Your task to perform on an android device: Search for "bose soundlink mini" on ebay, select the first entry, add it to the cart, then select checkout. Image 0: 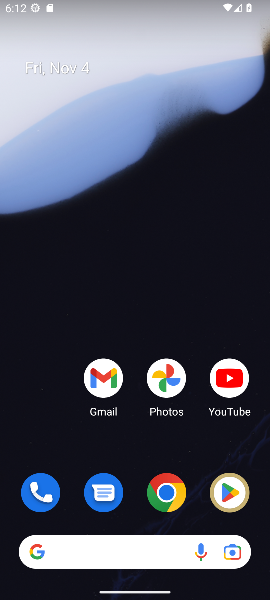
Step 0: drag from (135, 448) to (135, 49)
Your task to perform on an android device: Search for "bose soundlink mini" on ebay, select the first entry, add it to the cart, then select checkout. Image 1: 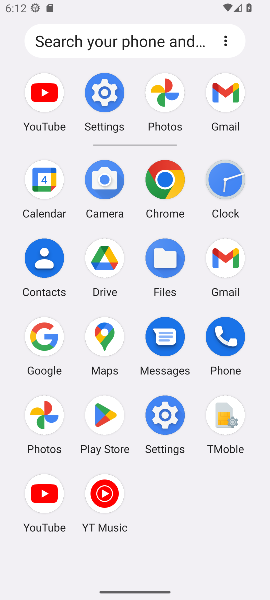
Step 1: click (159, 181)
Your task to perform on an android device: Search for "bose soundlink mini" on ebay, select the first entry, add it to the cart, then select checkout. Image 2: 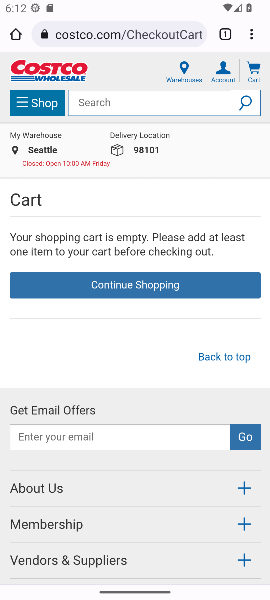
Step 2: click (154, 28)
Your task to perform on an android device: Search for "bose soundlink mini" on ebay, select the first entry, add it to the cart, then select checkout. Image 3: 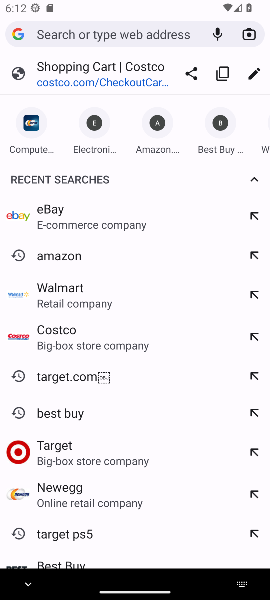
Step 3: type "ebay.com"
Your task to perform on an android device: Search for "bose soundlink mini" on ebay, select the first entry, add it to the cart, then select checkout. Image 4: 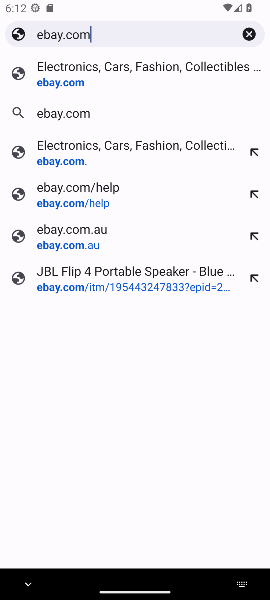
Step 4: press enter
Your task to perform on an android device: Search for "bose soundlink mini" on ebay, select the first entry, add it to the cart, then select checkout. Image 5: 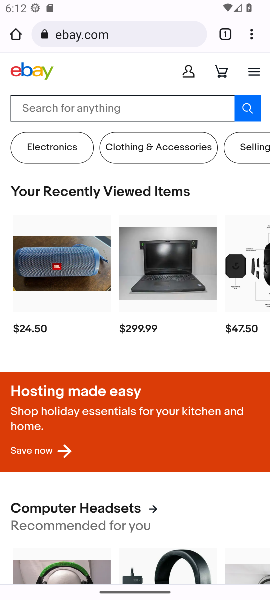
Step 5: click (144, 109)
Your task to perform on an android device: Search for "bose soundlink mini" on ebay, select the first entry, add it to the cart, then select checkout. Image 6: 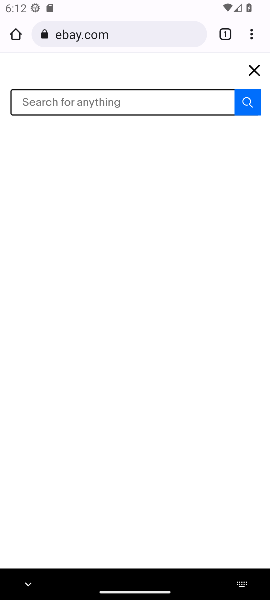
Step 6: type "bose soundlink mini"
Your task to perform on an android device: Search for "bose soundlink mini" on ebay, select the first entry, add it to the cart, then select checkout. Image 7: 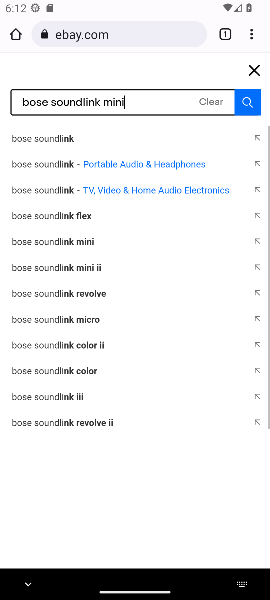
Step 7: press enter
Your task to perform on an android device: Search for "bose soundlink mini" on ebay, select the first entry, add it to the cart, then select checkout. Image 8: 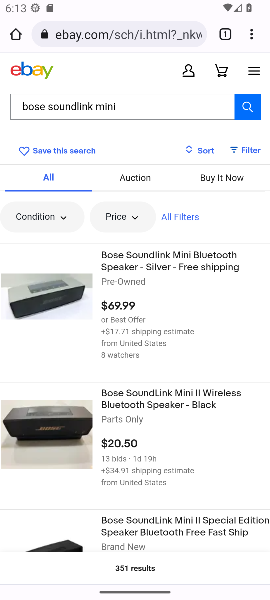
Step 8: click (181, 263)
Your task to perform on an android device: Search for "bose soundlink mini" on ebay, select the first entry, add it to the cart, then select checkout. Image 9: 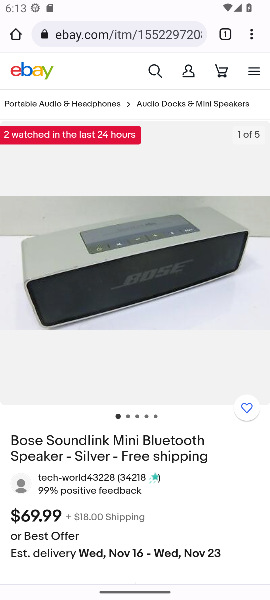
Step 9: drag from (134, 432) to (167, 99)
Your task to perform on an android device: Search for "bose soundlink mini" on ebay, select the first entry, add it to the cart, then select checkout. Image 10: 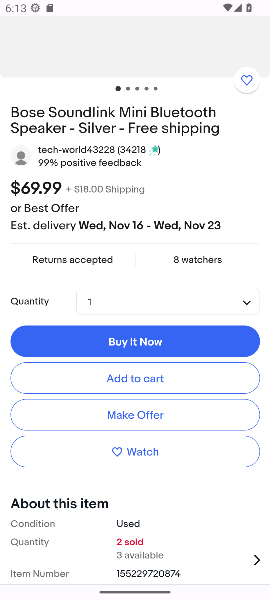
Step 10: click (199, 377)
Your task to perform on an android device: Search for "bose soundlink mini" on ebay, select the first entry, add it to the cart, then select checkout. Image 11: 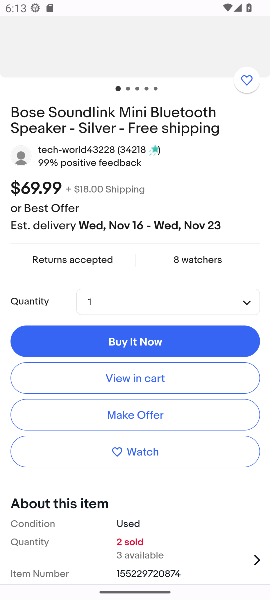
Step 11: click (199, 377)
Your task to perform on an android device: Search for "bose soundlink mini" on ebay, select the first entry, add it to the cart, then select checkout. Image 12: 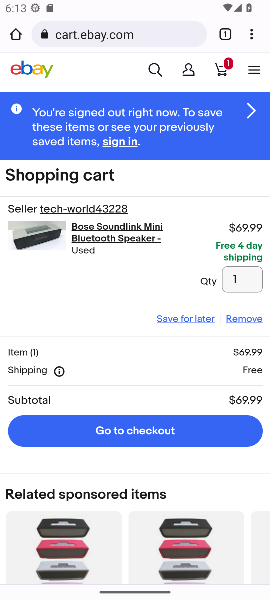
Step 12: click (200, 436)
Your task to perform on an android device: Search for "bose soundlink mini" on ebay, select the first entry, add it to the cart, then select checkout. Image 13: 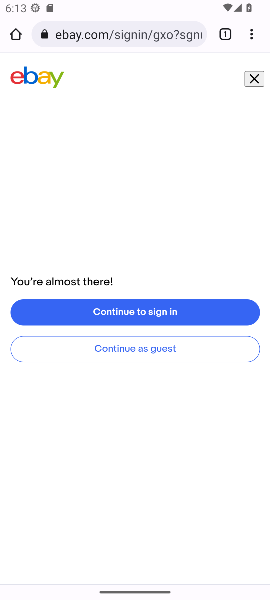
Step 13: task complete